Your task to perform on an android device: Go to privacy settings Image 0: 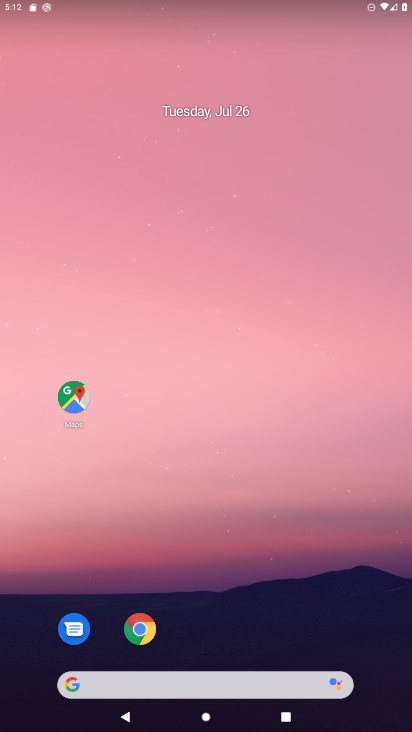
Step 0: drag from (184, 604) to (161, 105)
Your task to perform on an android device: Go to privacy settings Image 1: 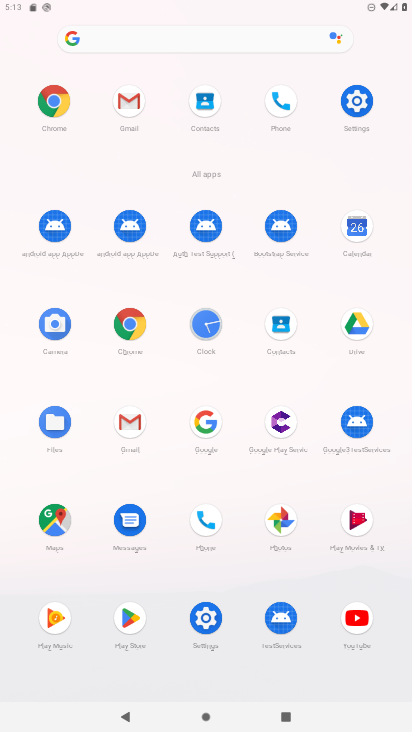
Step 1: click (357, 106)
Your task to perform on an android device: Go to privacy settings Image 2: 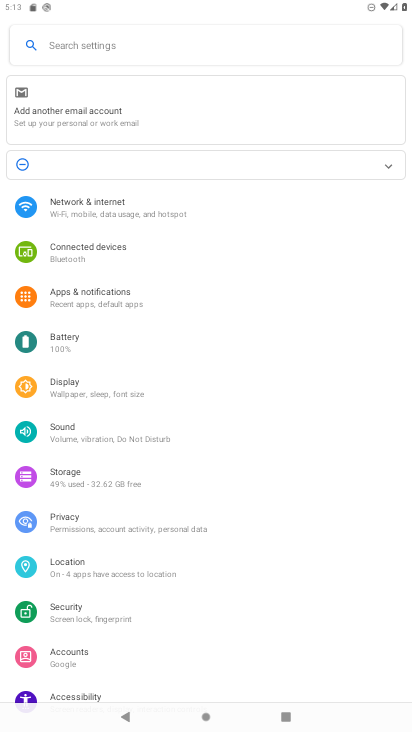
Step 2: click (61, 530)
Your task to perform on an android device: Go to privacy settings Image 3: 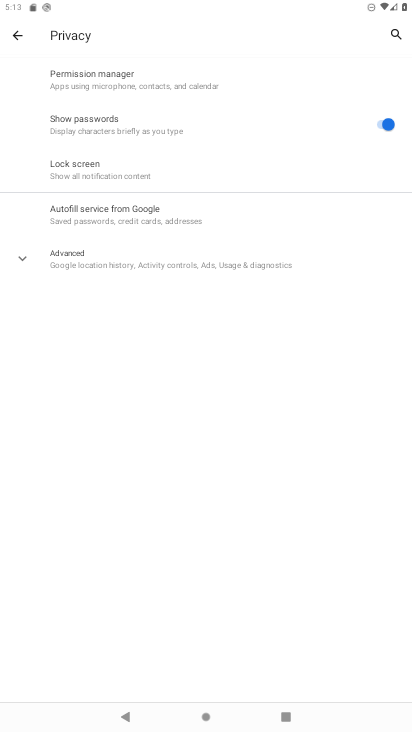
Step 3: task complete